Your task to perform on an android device: install app "Pandora - Music & Podcasts" Image 0: 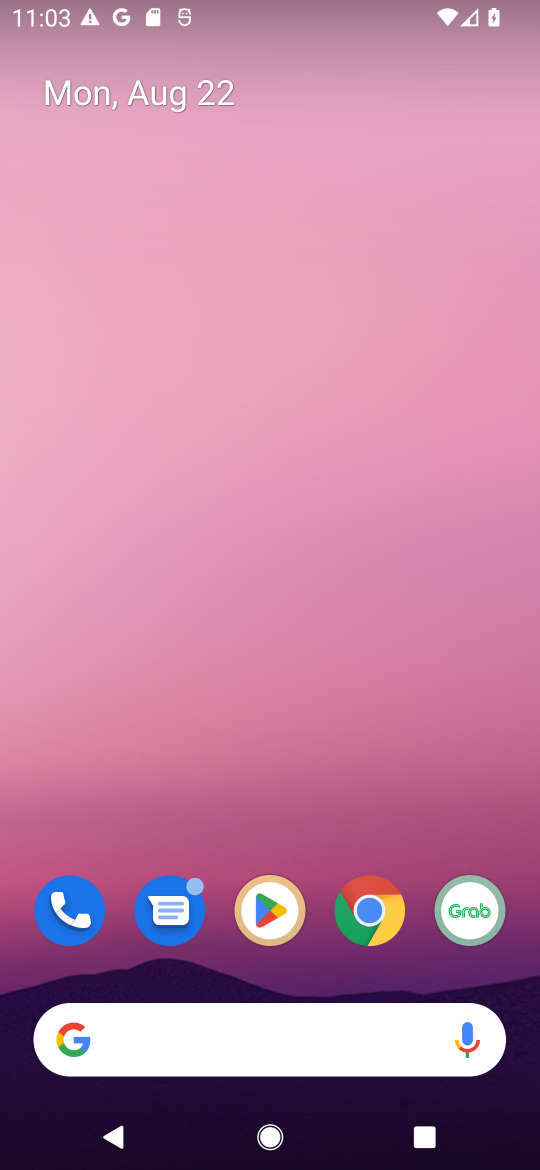
Step 0: click (272, 921)
Your task to perform on an android device: install app "Pandora - Music & Podcasts" Image 1: 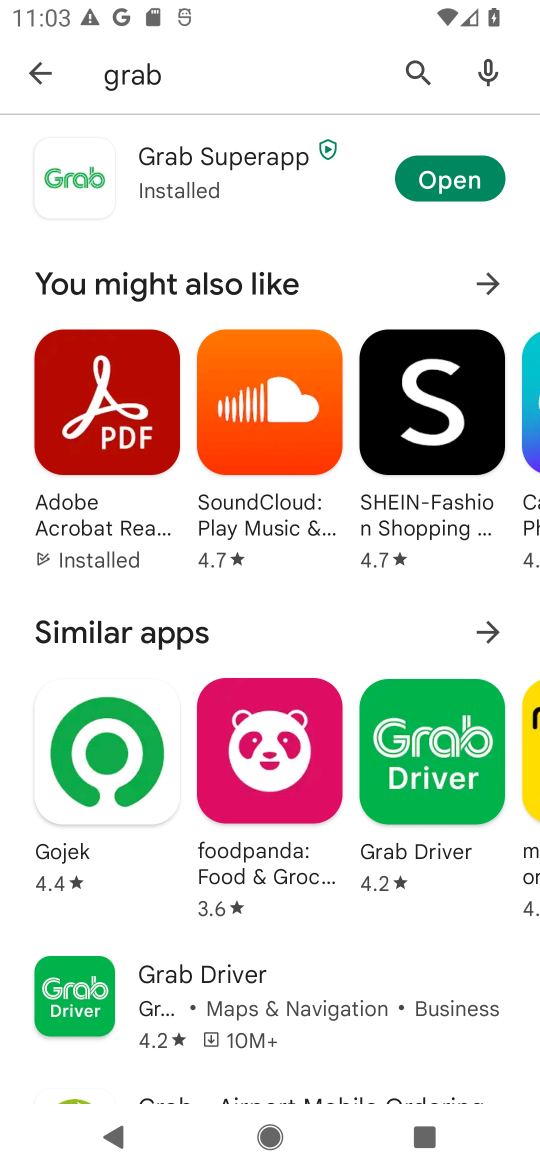
Step 1: click (414, 78)
Your task to perform on an android device: install app "Pandora - Music & Podcasts" Image 2: 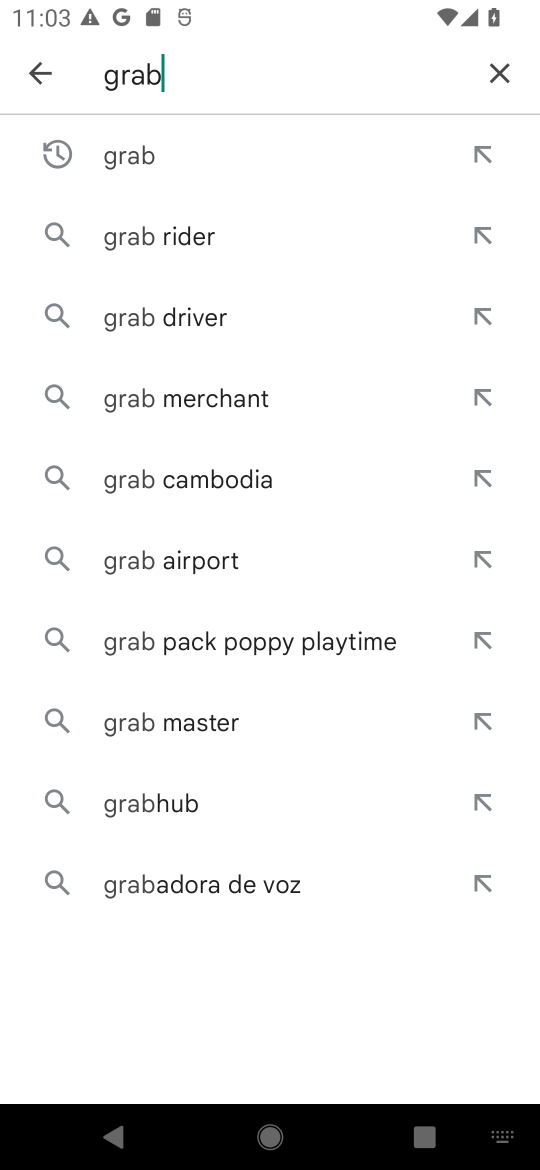
Step 2: click (504, 69)
Your task to perform on an android device: install app "Pandora - Music & Podcasts" Image 3: 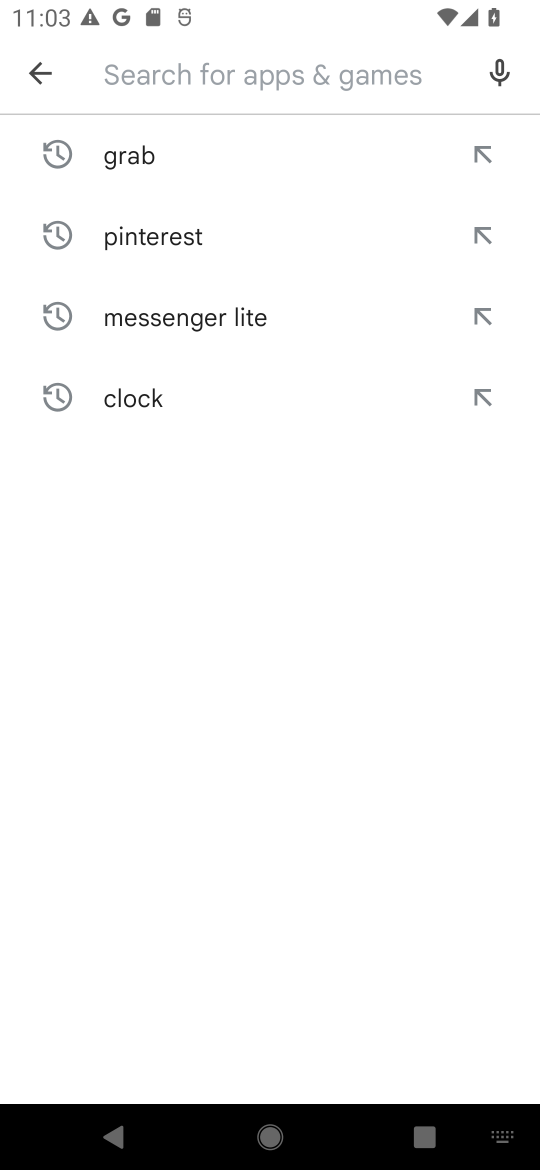
Step 3: type "Pandora - Music & Podcasts"
Your task to perform on an android device: install app "Pandora - Music & Podcasts" Image 4: 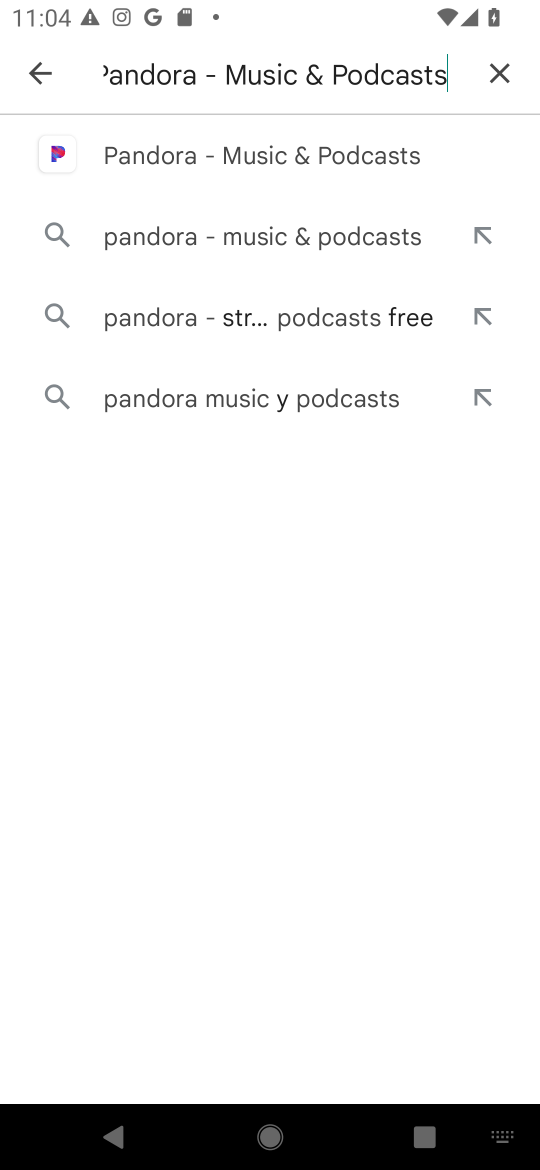
Step 4: click (236, 164)
Your task to perform on an android device: install app "Pandora - Music & Podcasts" Image 5: 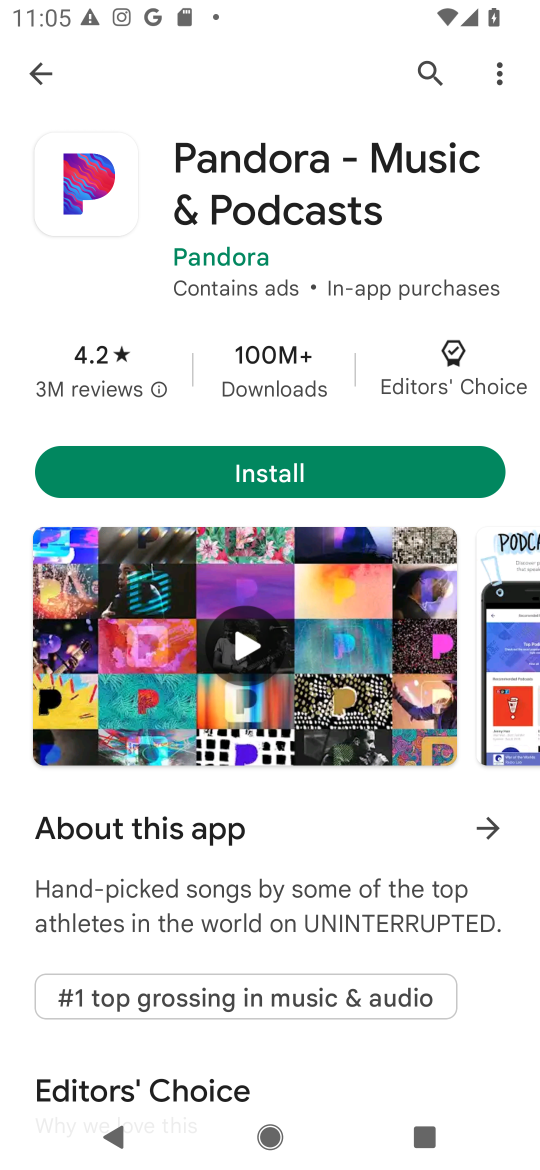
Step 5: click (301, 477)
Your task to perform on an android device: install app "Pandora - Music & Podcasts" Image 6: 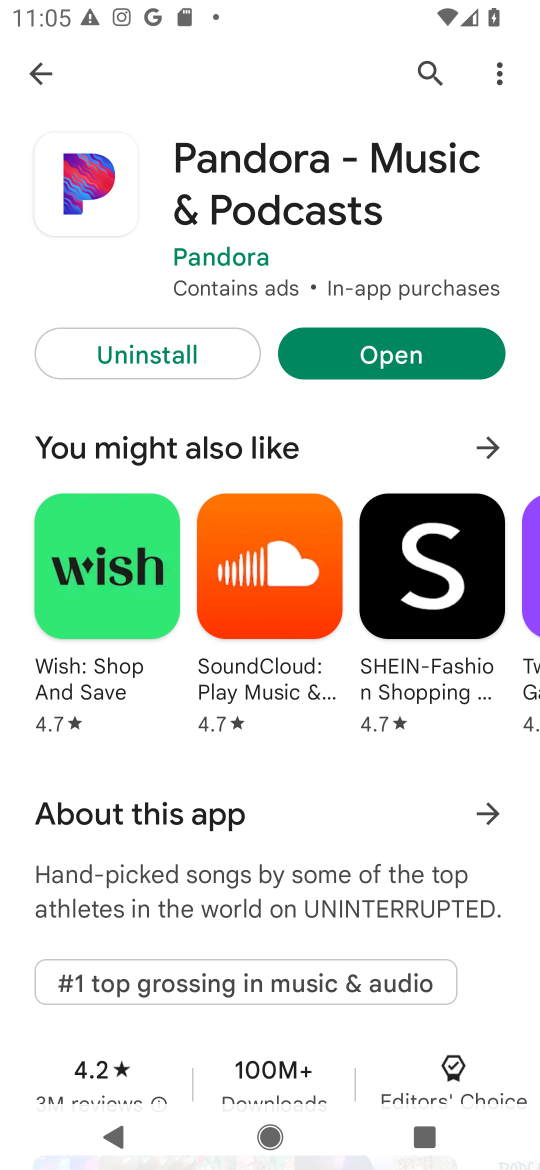
Step 6: click (398, 352)
Your task to perform on an android device: install app "Pandora - Music & Podcasts" Image 7: 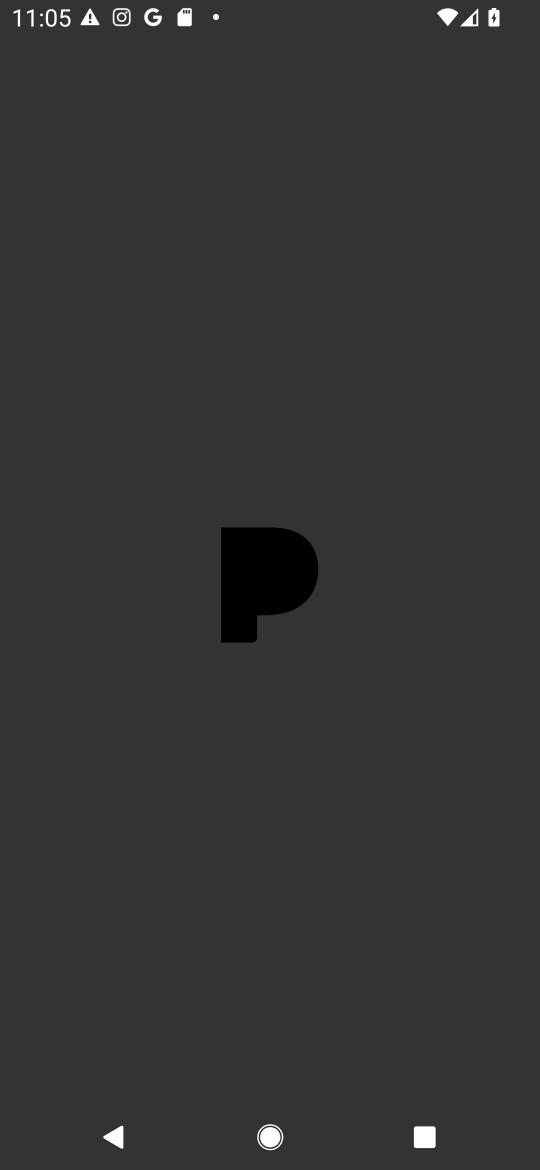
Step 7: task complete